Your task to perform on an android device: change the clock display to show seconds Image 0: 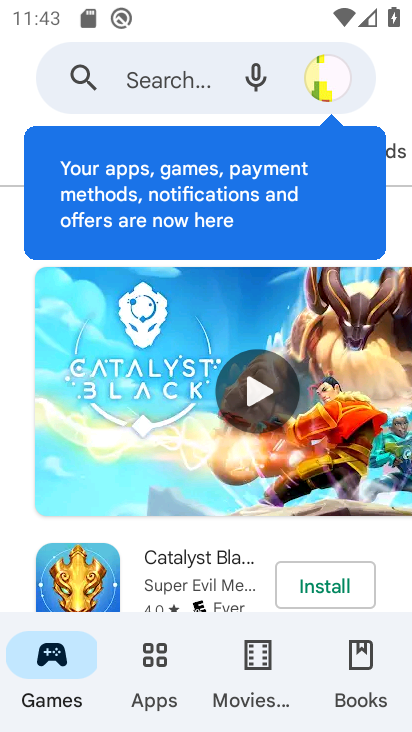
Step 0: press home button
Your task to perform on an android device: change the clock display to show seconds Image 1: 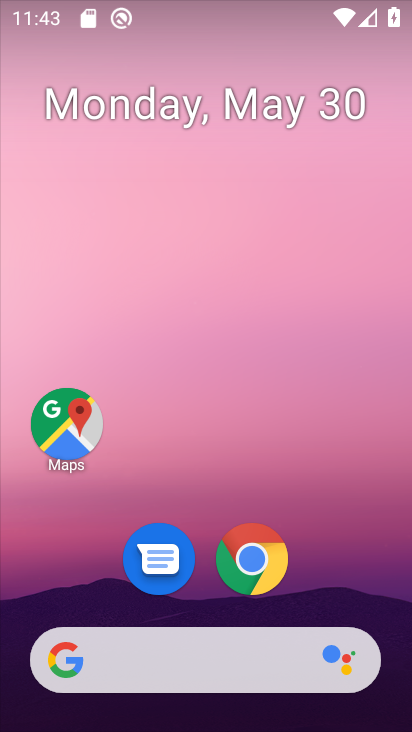
Step 1: drag from (339, 587) to (379, 4)
Your task to perform on an android device: change the clock display to show seconds Image 2: 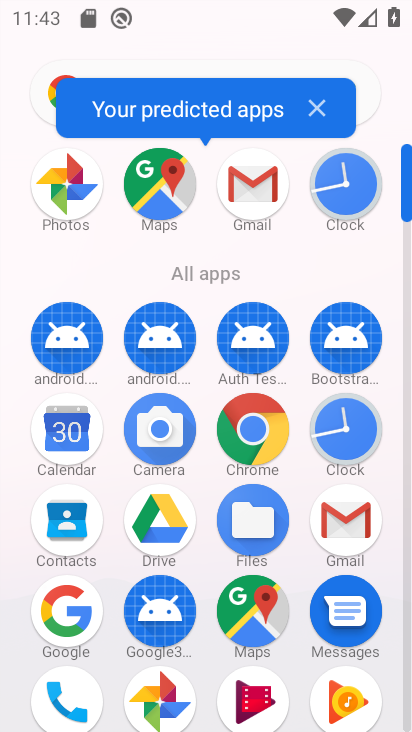
Step 2: click (360, 189)
Your task to perform on an android device: change the clock display to show seconds Image 3: 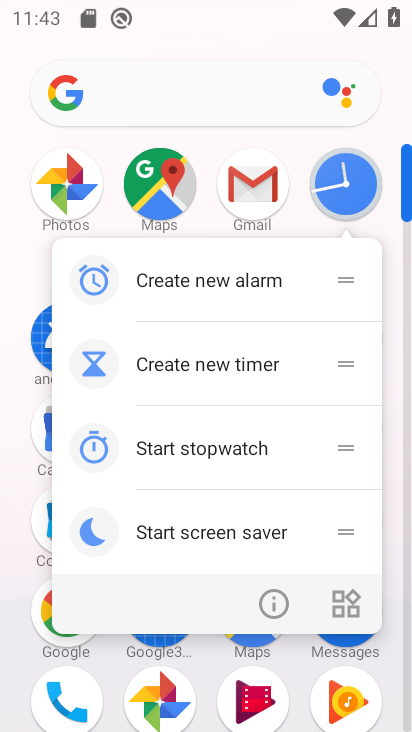
Step 3: click (343, 184)
Your task to perform on an android device: change the clock display to show seconds Image 4: 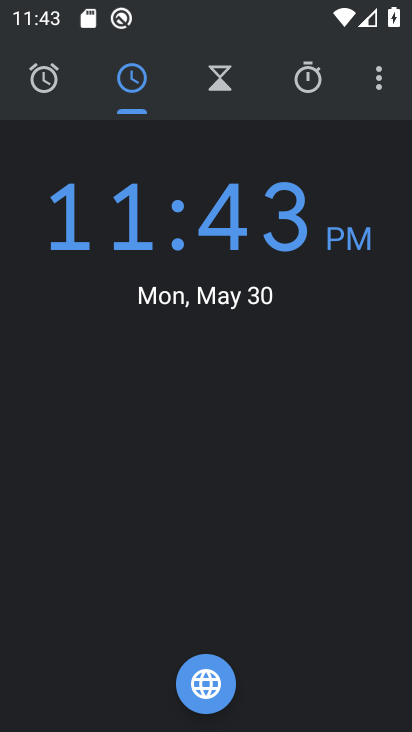
Step 4: click (386, 92)
Your task to perform on an android device: change the clock display to show seconds Image 5: 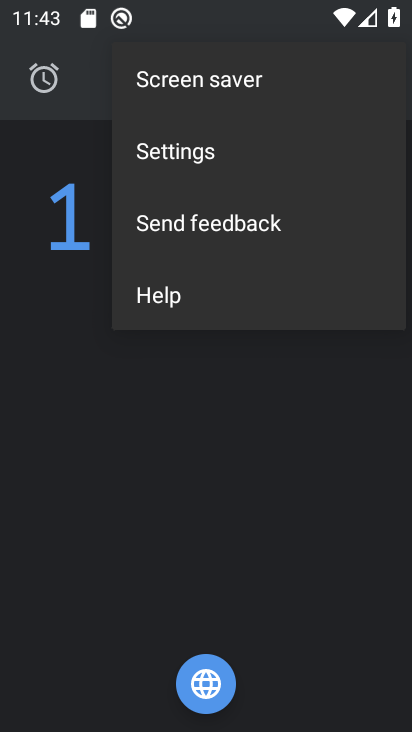
Step 5: click (306, 154)
Your task to perform on an android device: change the clock display to show seconds Image 6: 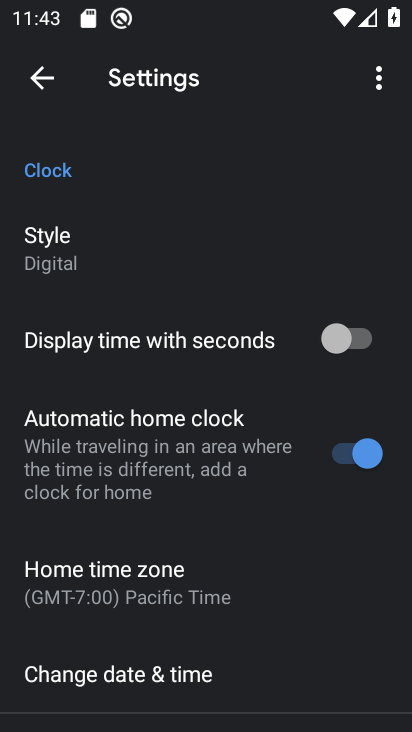
Step 6: click (349, 346)
Your task to perform on an android device: change the clock display to show seconds Image 7: 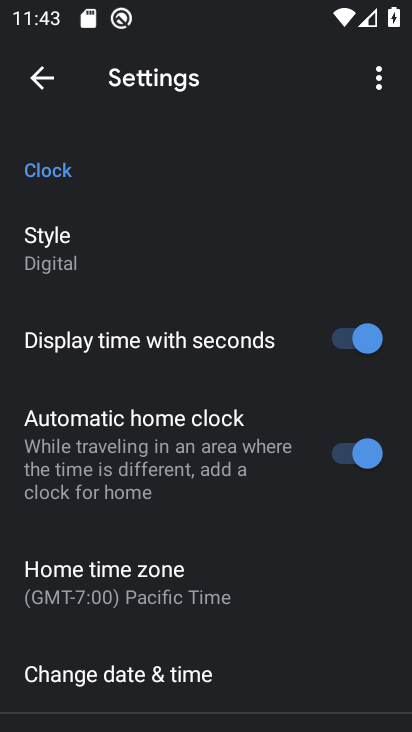
Step 7: task complete